Your task to perform on an android device: Search for razer deathadder on amazon, select the first entry, add it to the cart, then select checkout. Image 0: 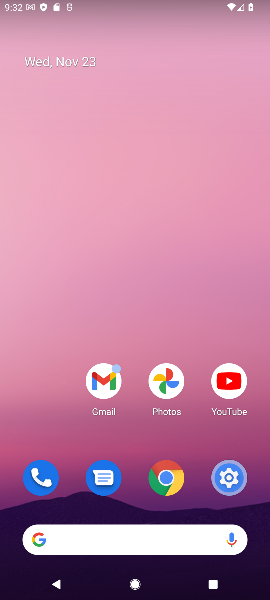
Step 0: click (159, 543)
Your task to perform on an android device: Search for razer deathadder on amazon, select the first entry, add it to the cart, then select checkout. Image 1: 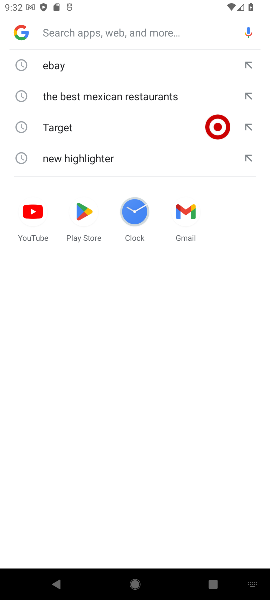
Step 1: type "amazon.com"
Your task to perform on an android device: Search for razer deathadder on amazon, select the first entry, add it to the cart, then select checkout. Image 2: 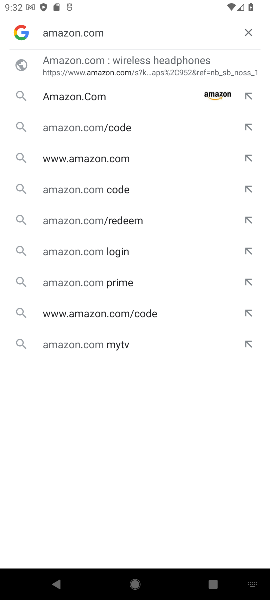
Step 2: click (126, 100)
Your task to perform on an android device: Search for razer deathadder on amazon, select the first entry, add it to the cart, then select checkout. Image 3: 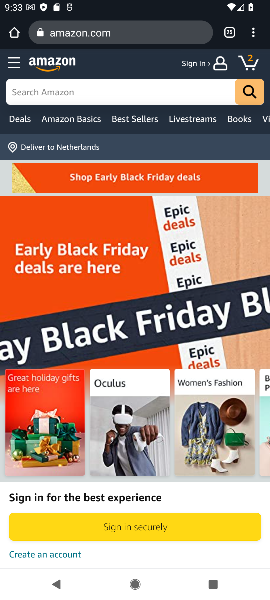
Step 3: click (38, 93)
Your task to perform on an android device: Search for razer deathadder on amazon, select the first entry, add it to the cart, then select checkout. Image 4: 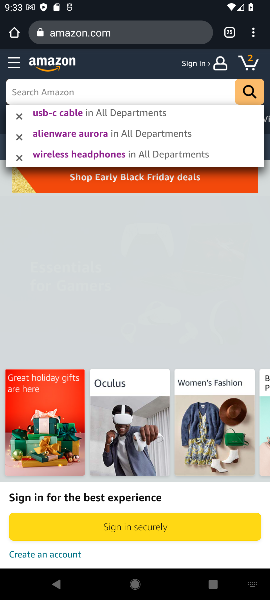
Step 4: type "razer deathadder"
Your task to perform on an android device: Search for razer deathadder on amazon, select the first entry, add it to the cart, then select checkout. Image 5: 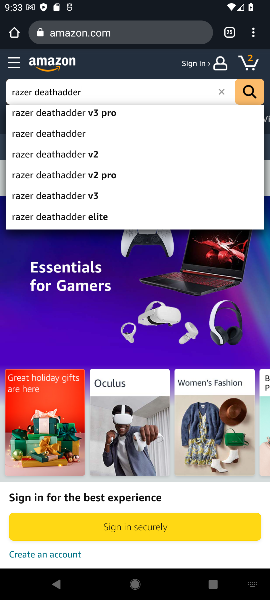
Step 5: click (109, 108)
Your task to perform on an android device: Search for razer deathadder on amazon, select the first entry, add it to the cart, then select checkout. Image 6: 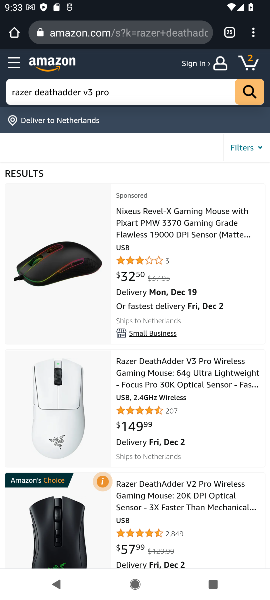
Step 6: click (186, 245)
Your task to perform on an android device: Search for razer deathadder on amazon, select the first entry, add it to the cart, then select checkout. Image 7: 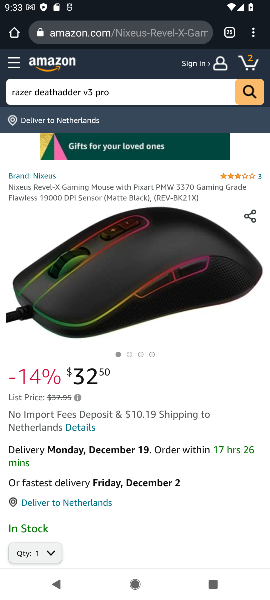
Step 7: drag from (143, 554) to (118, 361)
Your task to perform on an android device: Search for razer deathadder on amazon, select the first entry, add it to the cart, then select checkout. Image 8: 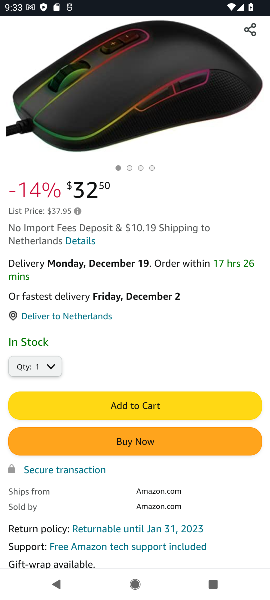
Step 8: click (155, 400)
Your task to perform on an android device: Search for razer deathadder on amazon, select the first entry, add it to the cart, then select checkout. Image 9: 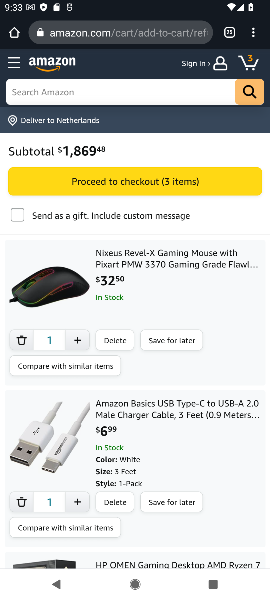
Step 9: task complete